Your task to perform on an android device: Show me recent news Image 0: 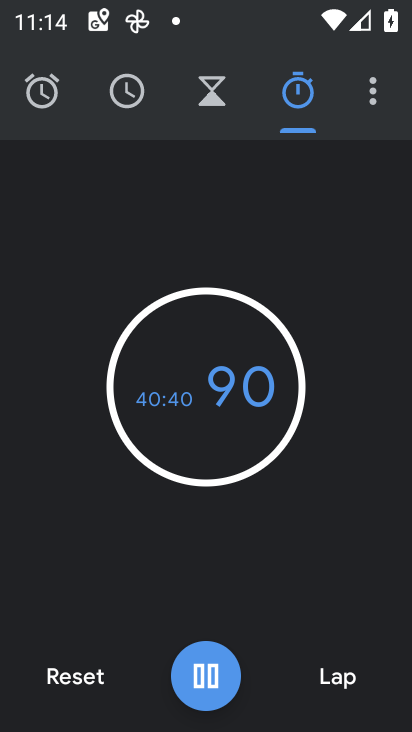
Step 0: press home button
Your task to perform on an android device: Show me recent news Image 1: 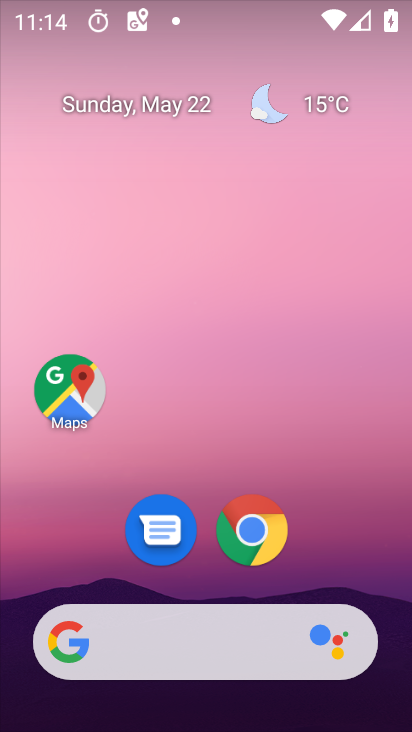
Step 1: task complete